Your task to perform on an android device: Open Youtube and go to the subscriptions tab Image 0: 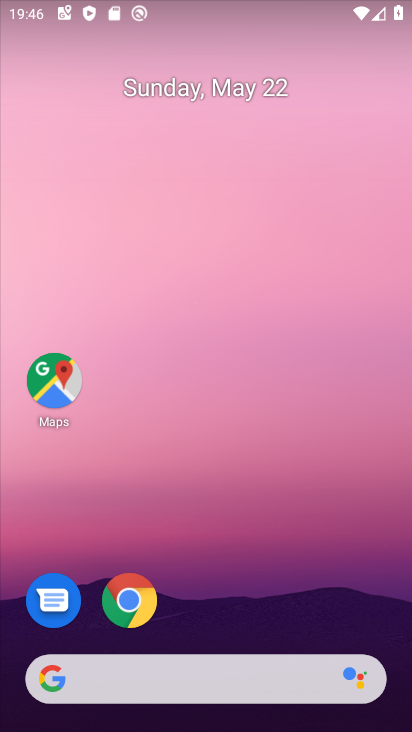
Step 0: drag from (274, 571) to (212, 2)
Your task to perform on an android device: Open Youtube and go to the subscriptions tab Image 1: 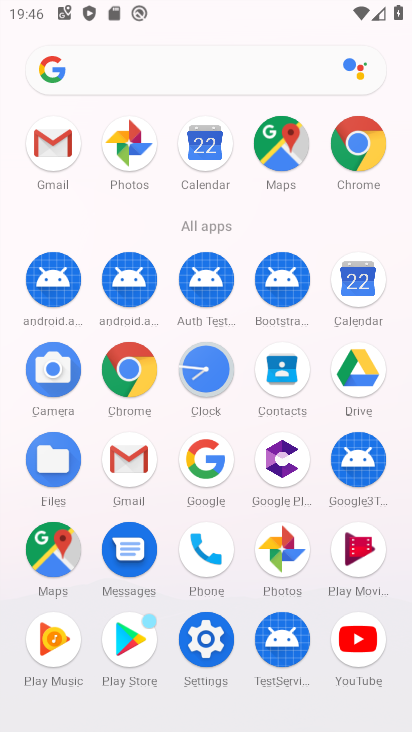
Step 1: click (358, 630)
Your task to perform on an android device: Open Youtube and go to the subscriptions tab Image 2: 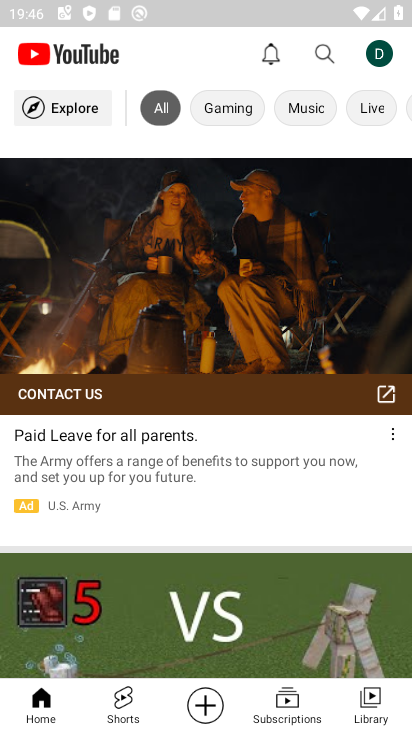
Step 2: click (285, 708)
Your task to perform on an android device: Open Youtube and go to the subscriptions tab Image 3: 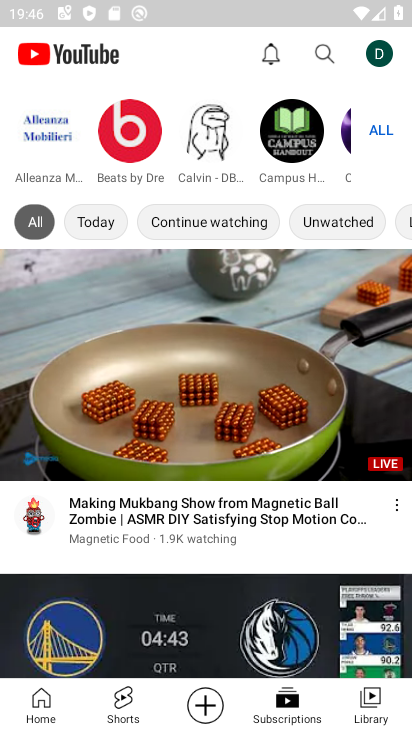
Step 3: task complete